Your task to perform on an android device: toggle notification dots Image 0: 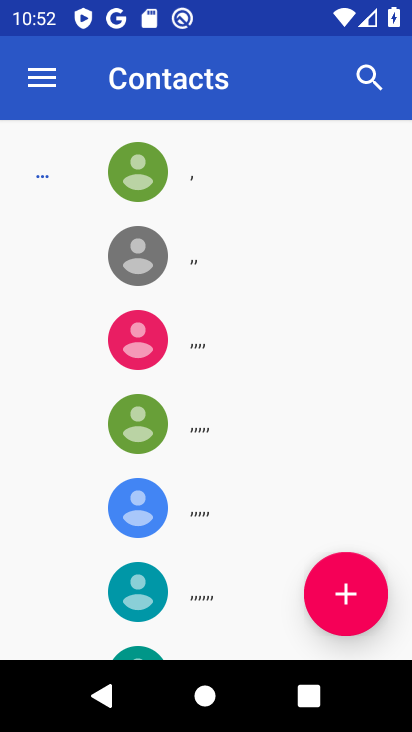
Step 0: press home button
Your task to perform on an android device: toggle notification dots Image 1: 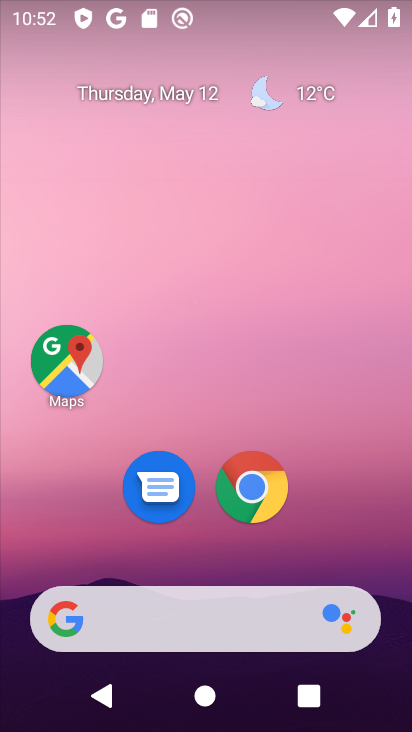
Step 1: drag from (333, 564) to (308, 15)
Your task to perform on an android device: toggle notification dots Image 2: 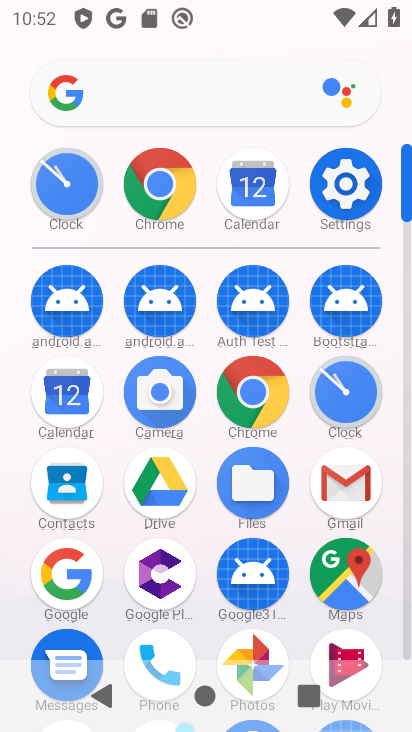
Step 2: click (354, 191)
Your task to perform on an android device: toggle notification dots Image 3: 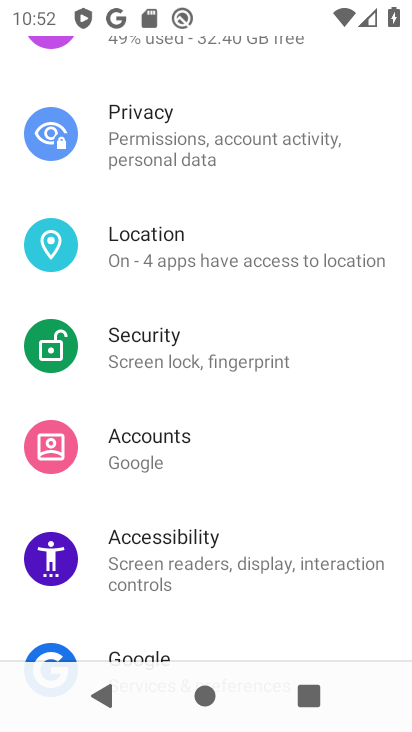
Step 3: drag from (358, 235) to (340, 518)
Your task to perform on an android device: toggle notification dots Image 4: 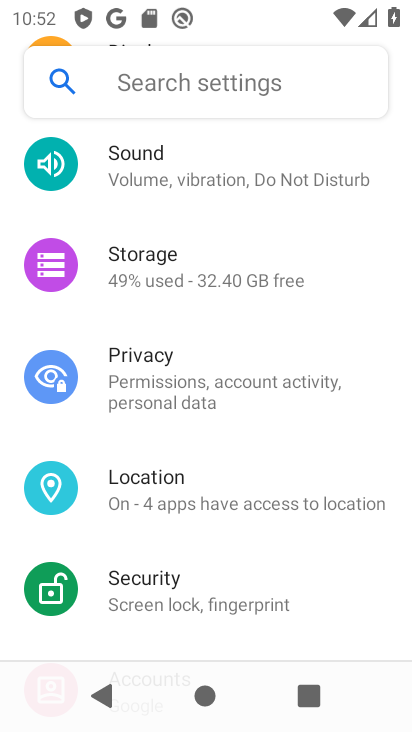
Step 4: drag from (325, 266) to (305, 543)
Your task to perform on an android device: toggle notification dots Image 5: 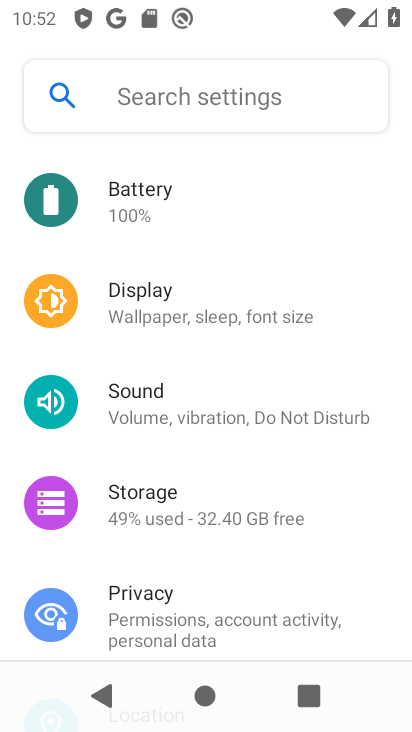
Step 5: drag from (291, 235) to (282, 556)
Your task to perform on an android device: toggle notification dots Image 6: 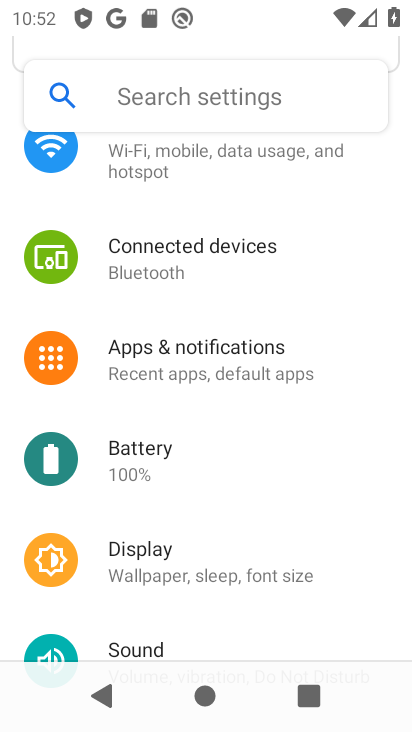
Step 6: click (157, 353)
Your task to perform on an android device: toggle notification dots Image 7: 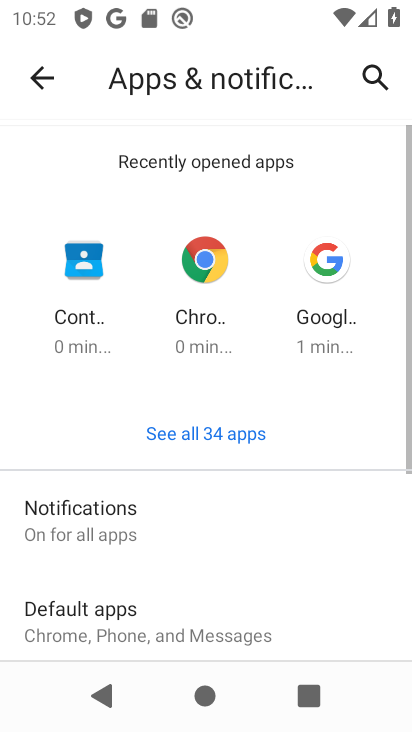
Step 7: drag from (198, 539) to (188, 277)
Your task to perform on an android device: toggle notification dots Image 8: 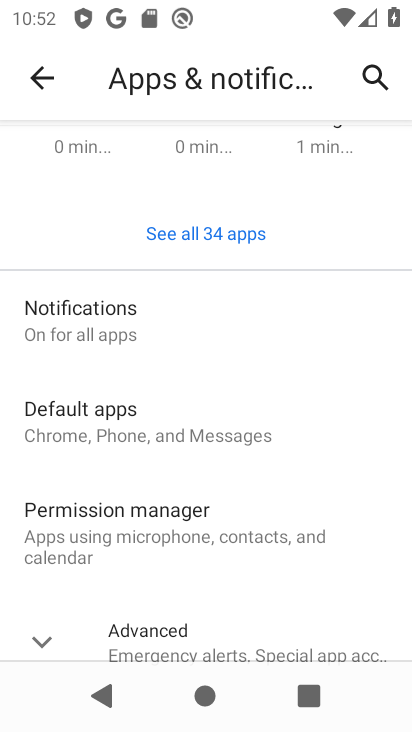
Step 8: click (77, 324)
Your task to perform on an android device: toggle notification dots Image 9: 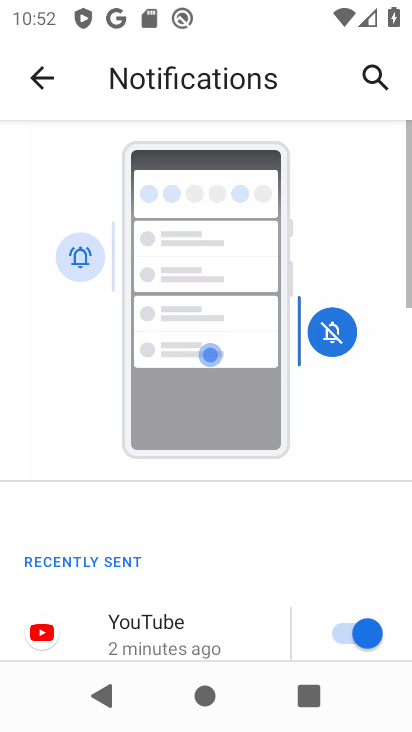
Step 9: drag from (184, 554) to (195, 61)
Your task to perform on an android device: toggle notification dots Image 10: 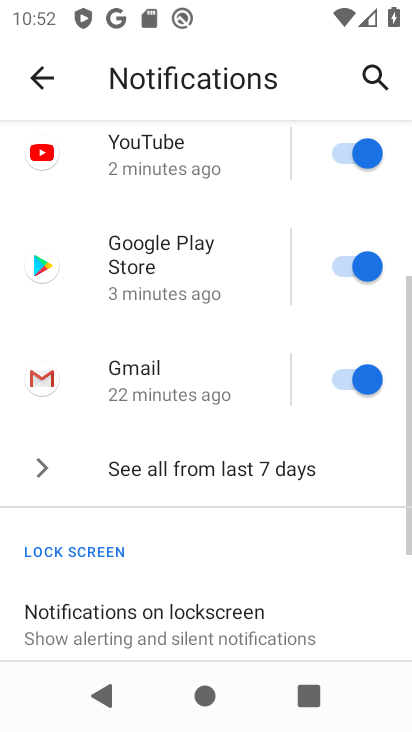
Step 10: drag from (172, 522) to (172, 33)
Your task to perform on an android device: toggle notification dots Image 11: 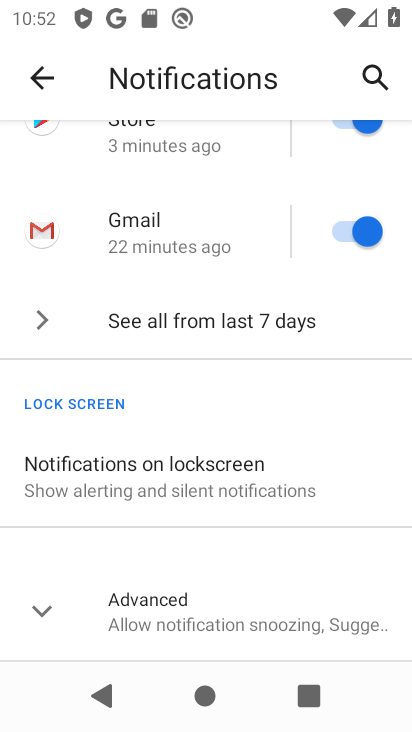
Step 11: click (45, 618)
Your task to perform on an android device: toggle notification dots Image 12: 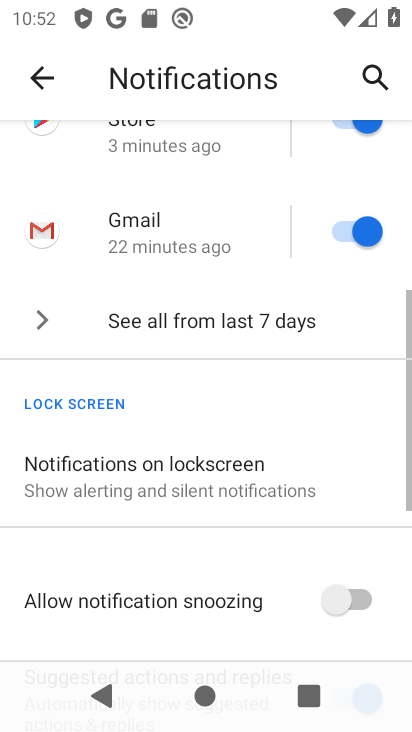
Step 12: drag from (201, 590) to (216, 70)
Your task to perform on an android device: toggle notification dots Image 13: 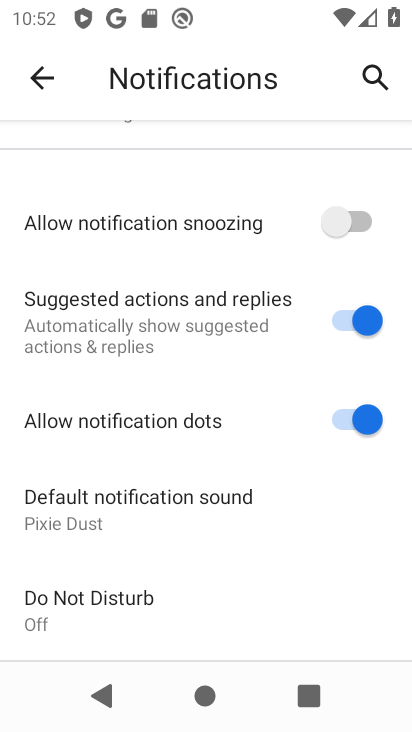
Step 13: click (382, 414)
Your task to perform on an android device: toggle notification dots Image 14: 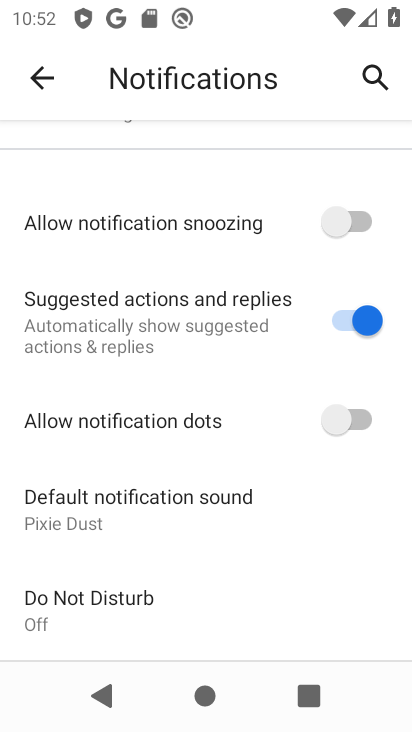
Step 14: task complete